Your task to perform on an android device: Go to Android settings Image 0: 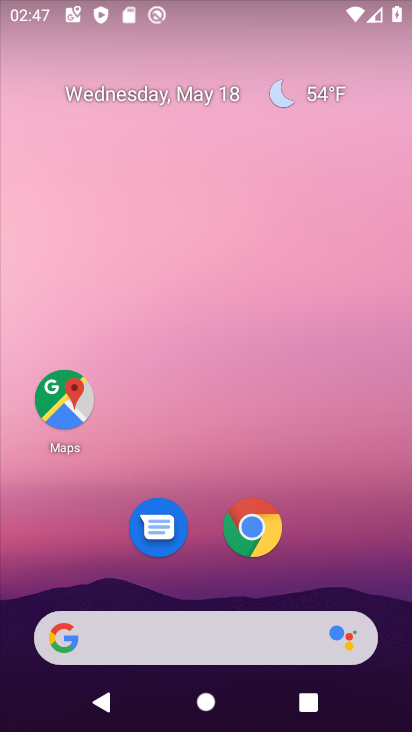
Step 0: drag from (210, 583) to (160, 2)
Your task to perform on an android device: Go to Android settings Image 1: 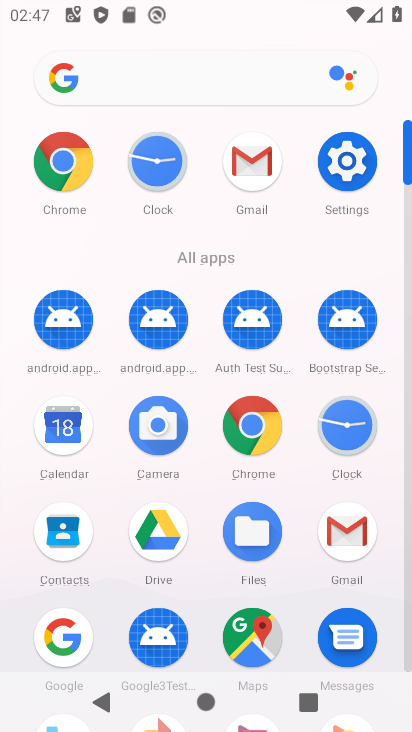
Step 1: click (339, 133)
Your task to perform on an android device: Go to Android settings Image 2: 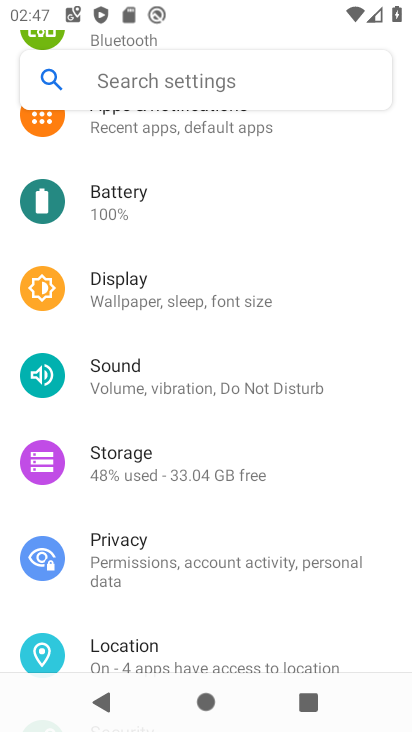
Step 2: drag from (228, 543) to (175, 39)
Your task to perform on an android device: Go to Android settings Image 3: 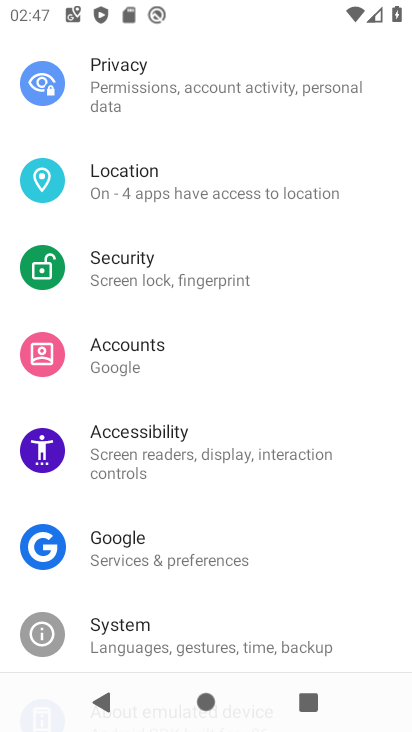
Step 3: drag from (226, 636) to (124, 27)
Your task to perform on an android device: Go to Android settings Image 4: 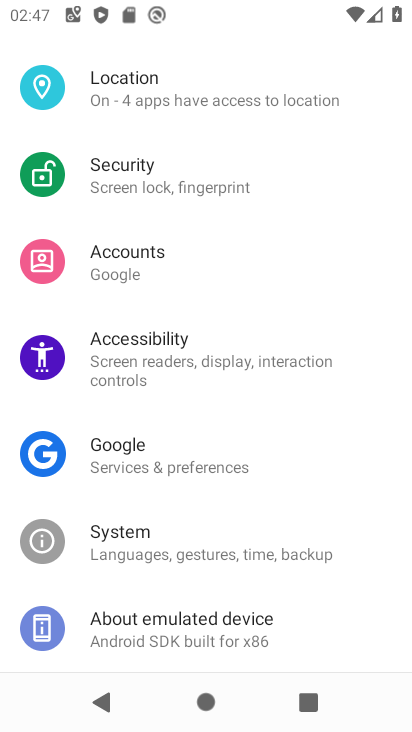
Step 4: click (161, 656)
Your task to perform on an android device: Go to Android settings Image 5: 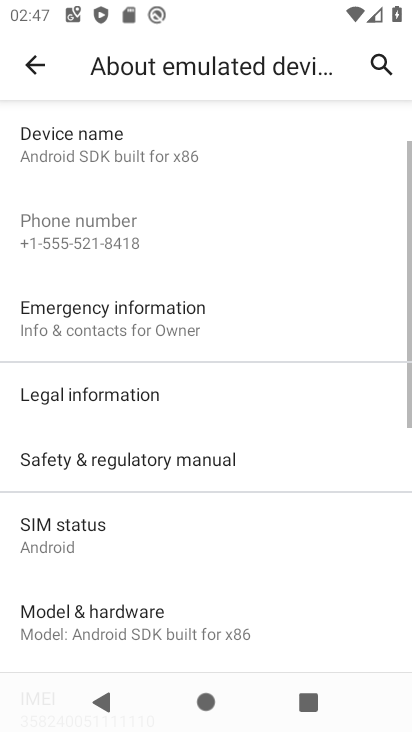
Step 5: drag from (220, 512) to (190, 154)
Your task to perform on an android device: Go to Android settings Image 6: 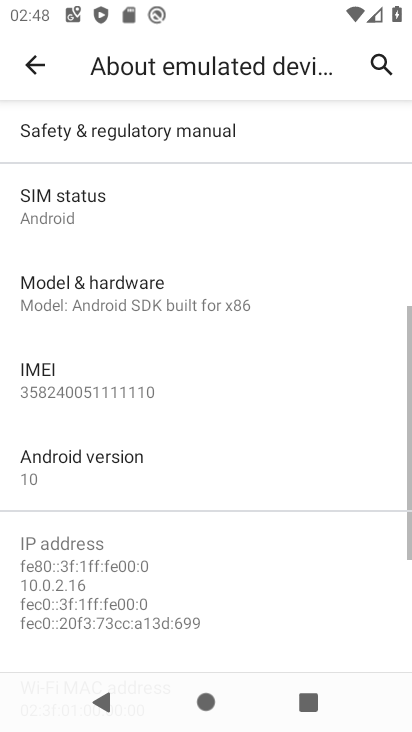
Step 6: drag from (69, 444) to (72, 258)
Your task to perform on an android device: Go to Android settings Image 7: 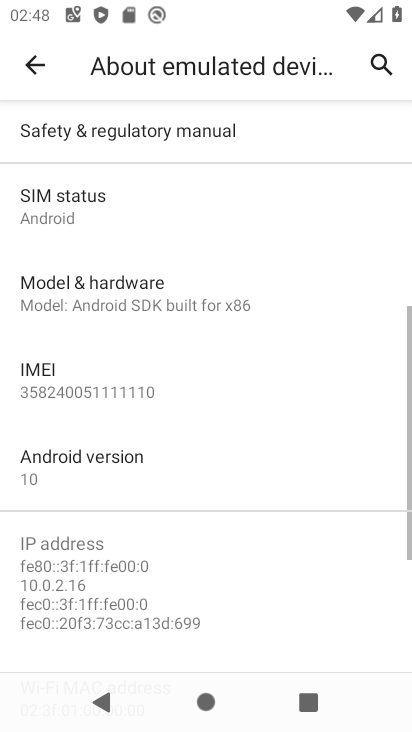
Step 7: click (109, 488)
Your task to perform on an android device: Go to Android settings Image 8: 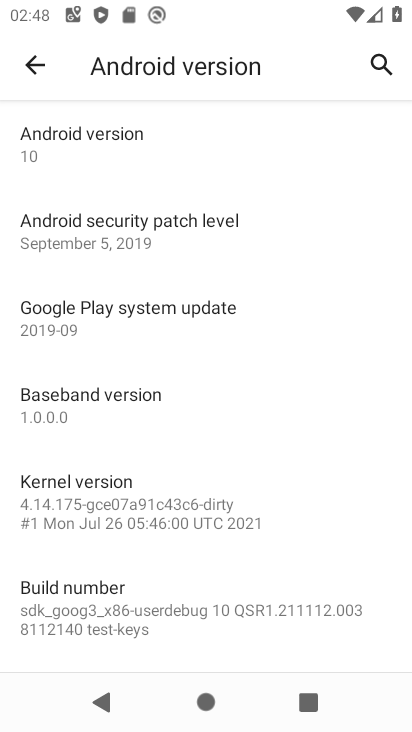
Step 8: click (121, 133)
Your task to perform on an android device: Go to Android settings Image 9: 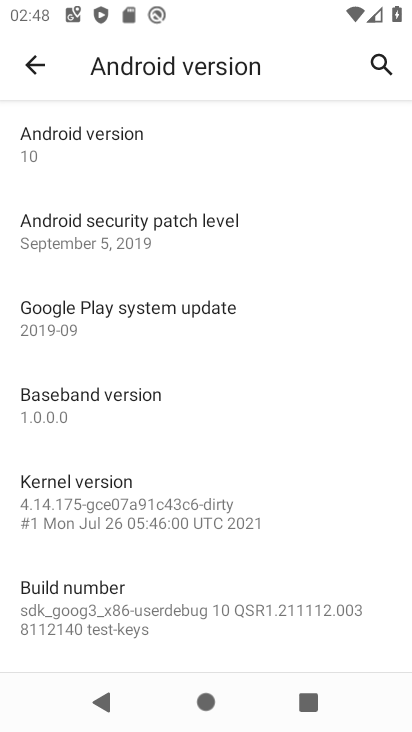
Step 9: task complete